Your task to perform on an android device: clear history in the chrome app Image 0: 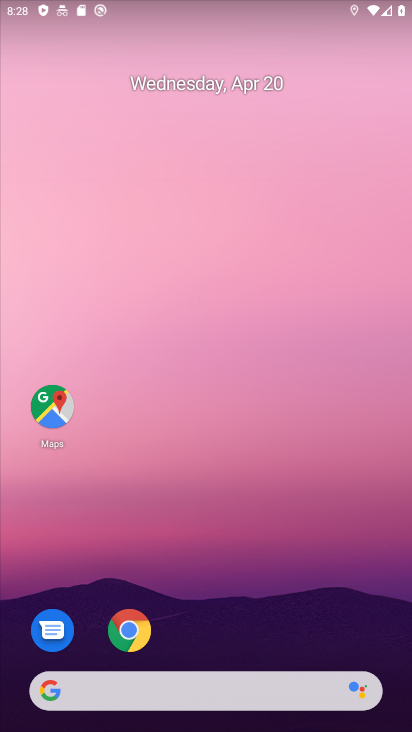
Step 0: click (126, 639)
Your task to perform on an android device: clear history in the chrome app Image 1: 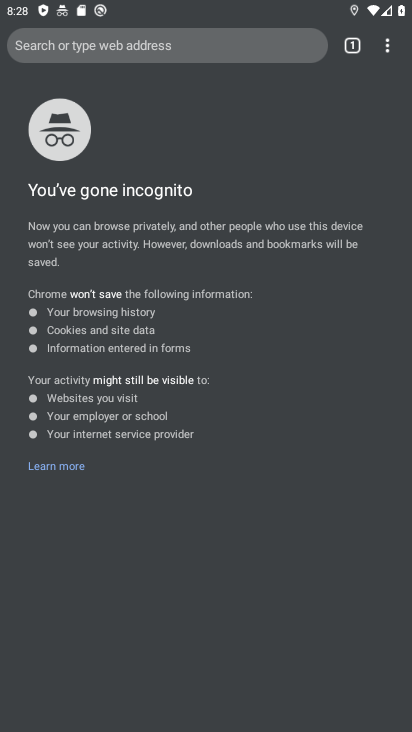
Step 1: click (384, 44)
Your task to perform on an android device: clear history in the chrome app Image 2: 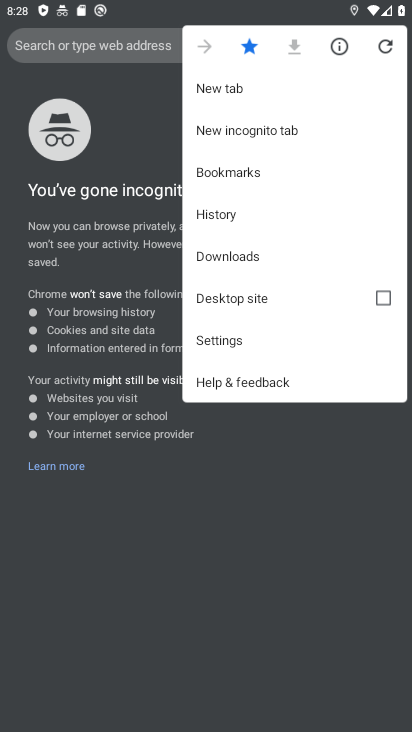
Step 2: click (221, 214)
Your task to perform on an android device: clear history in the chrome app Image 3: 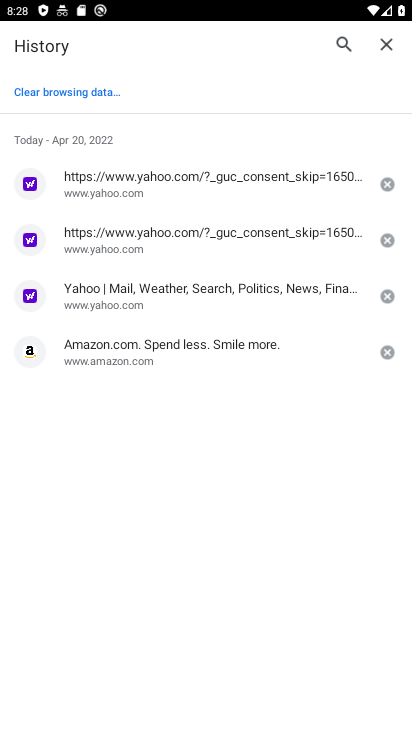
Step 3: click (77, 88)
Your task to perform on an android device: clear history in the chrome app Image 4: 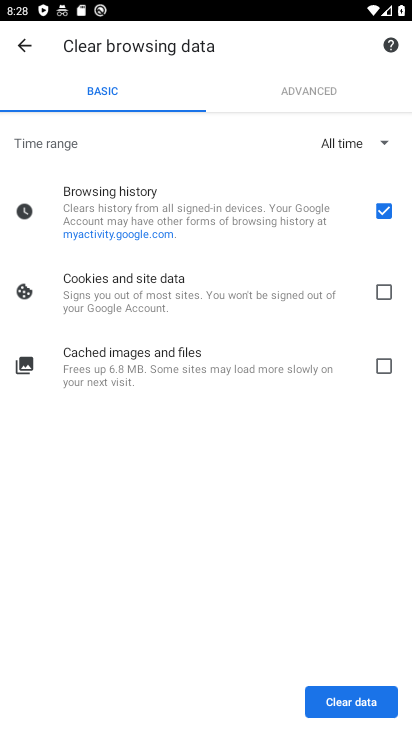
Step 4: click (336, 703)
Your task to perform on an android device: clear history in the chrome app Image 5: 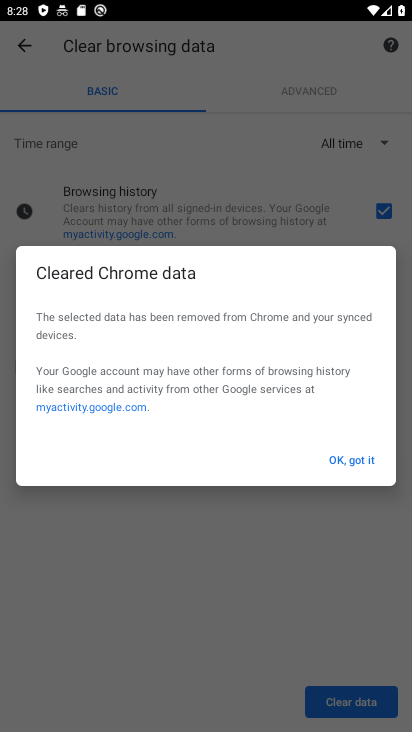
Step 5: click (350, 457)
Your task to perform on an android device: clear history in the chrome app Image 6: 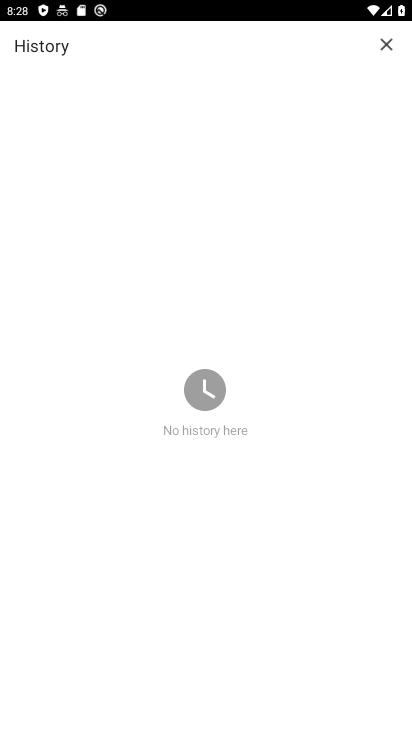
Step 6: task complete